Your task to perform on an android device: turn off airplane mode Image 0: 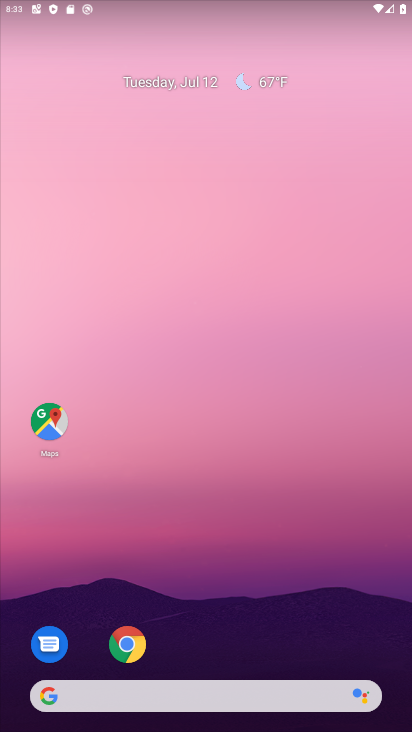
Step 0: drag from (176, 665) to (216, 155)
Your task to perform on an android device: turn off airplane mode Image 1: 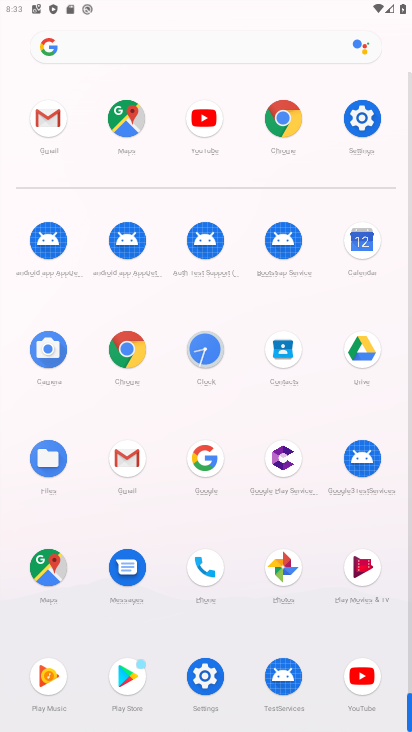
Step 1: click (361, 123)
Your task to perform on an android device: turn off airplane mode Image 2: 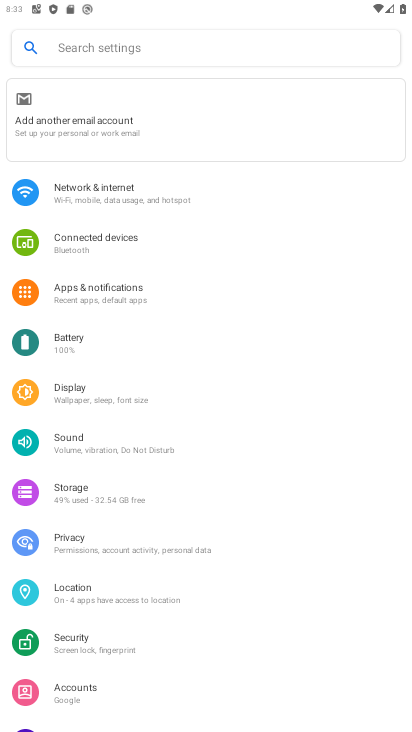
Step 2: click (98, 199)
Your task to perform on an android device: turn off airplane mode Image 3: 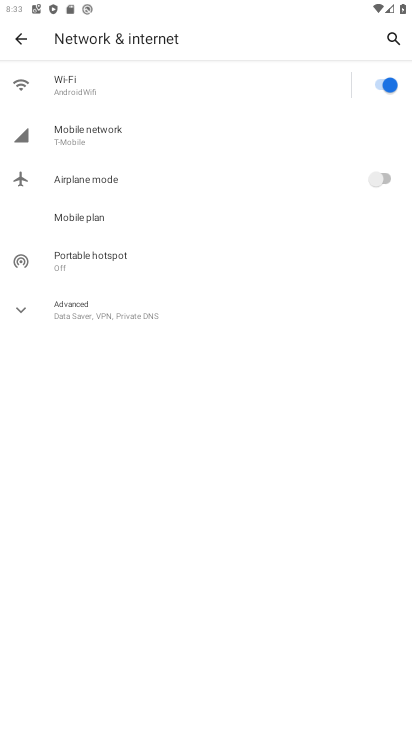
Step 3: task complete